Your task to perform on an android device: Search for seafood restaurants on Google Maps Image 0: 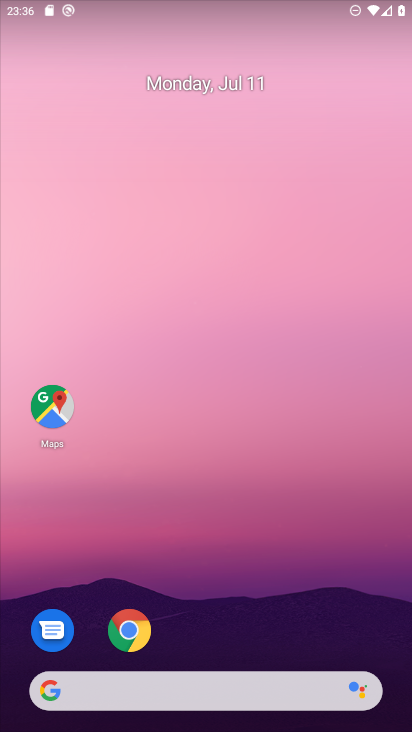
Step 0: drag from (233, 643) to (252, 226)
Your task to perform on an android device: Search for seafood restaurants on Google Maps Image 1: 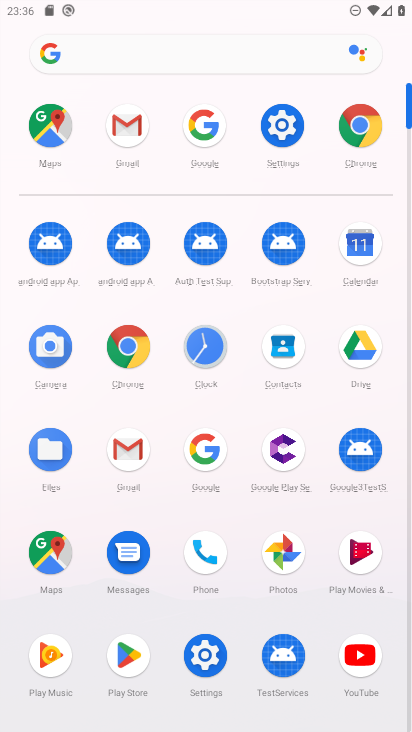
Step 1: click (48, 130)
Your task to perform on an android device: Search for seafood restaurants on Google Maps Image 2: 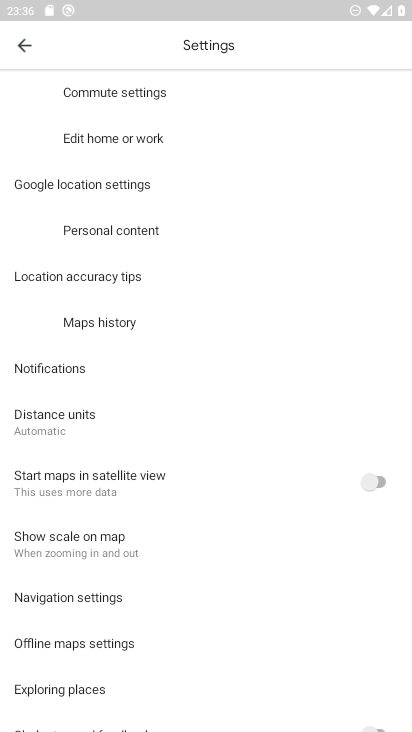
Step 2: press back button
Your task to perform on an android device: Search for seafood restaurants on Google Maps Image 3: 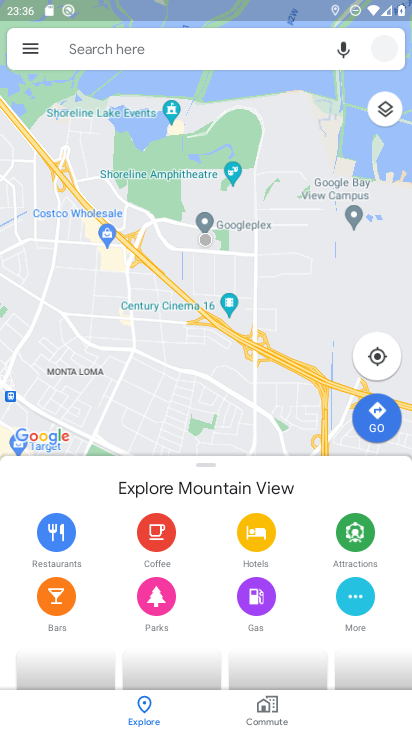
Step 3: click (157, 53)
Your task to perform on an android device: Search for seafood restaurants on Google Maps Image 4: 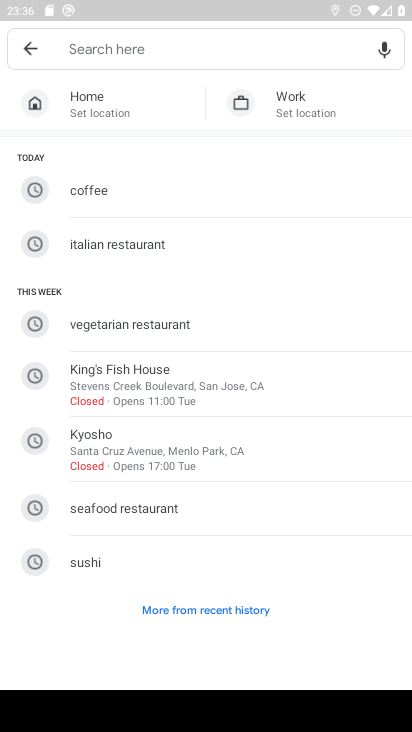
Step 4: click (145, 512)
Your task to perform on an android device: Search for seafood restaurants on Google Maps Image 5: 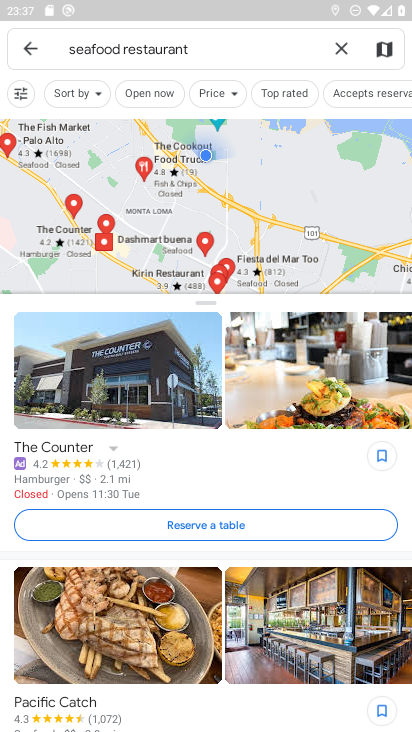
Step 5: task complete